Your task to perform on an android device: Go to eBay Image 0: 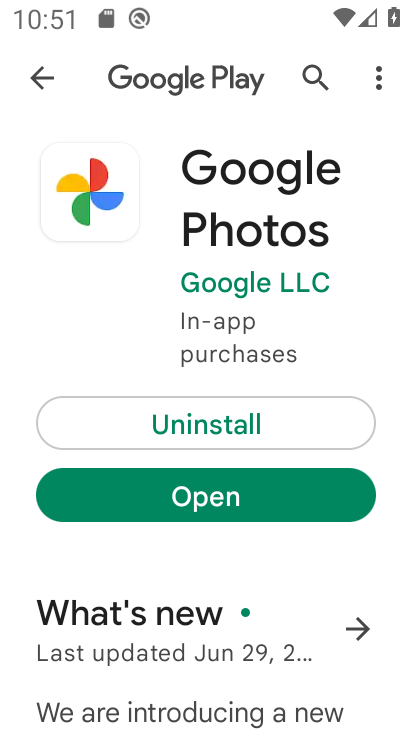
Step 0: press home button
Your task to perform on an android device: Go to eBay Image 1: 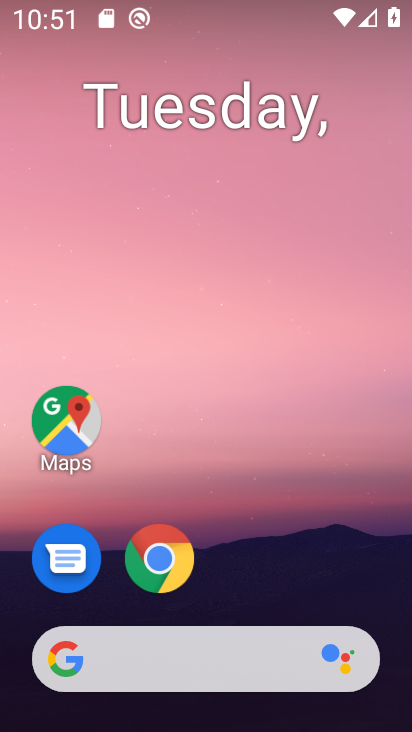
Step 1: drag from (312, 548) to (339, 85)
Your task to perform on an android device: Go to eBay Image 2: 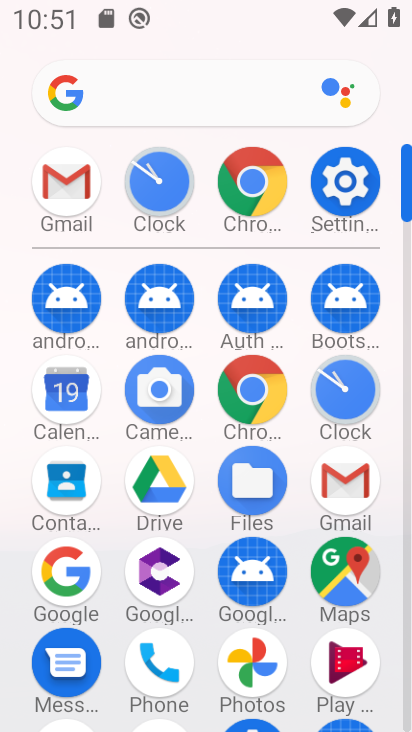
Step 2: click (255, 388)
Your task to perform on an android device: Go to eBay Image 3: 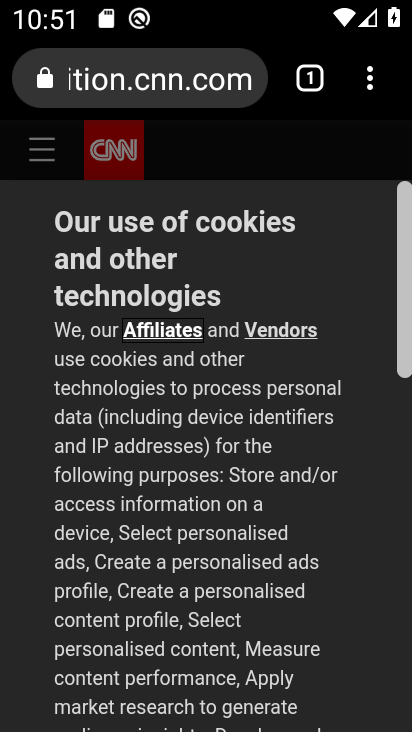
Step 3: click (196, 91)
Your task to perform on an android device: Go to eBay Image 4: 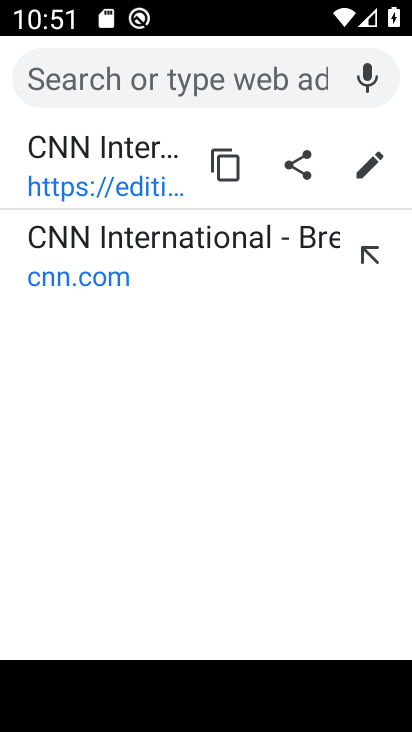
Step 4: type "ebay"
Your task to perform on an android device: Go to eBay Image 5: 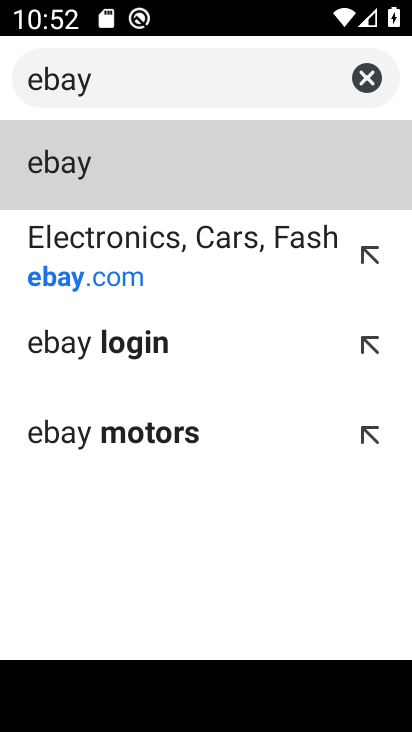
Step 5: click (168, 176)
Your task to perform on an android device: Go to eBay Image 6: 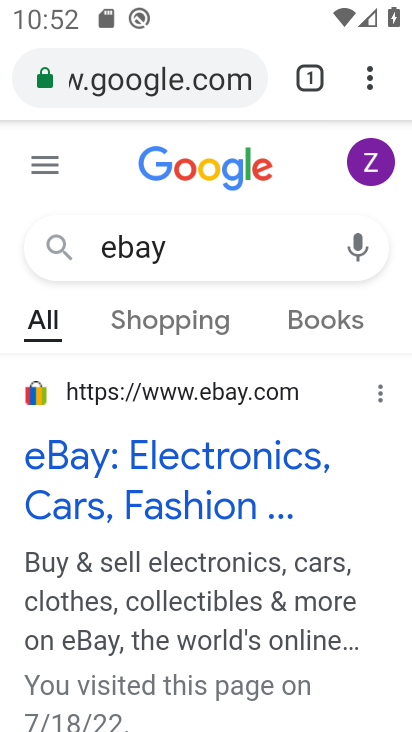
Step 6: task complete